Your task to perform on an android device: Go to display settings Image 0: 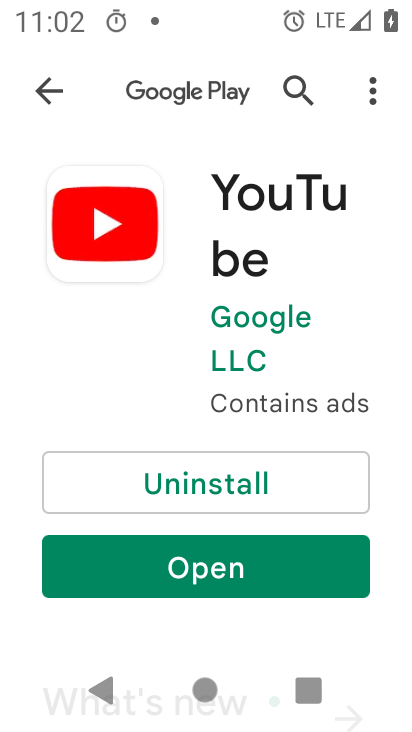
Step 0: press home button
Your task to perform on an android device: Go to display settings Image 1: 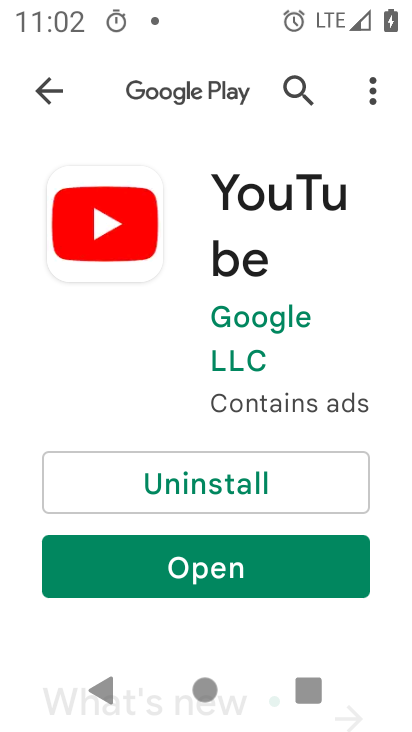
Step 1: drag from (255, 554) to (322, 6)
Your task to perform on an android device: Go to display settings Image 2: 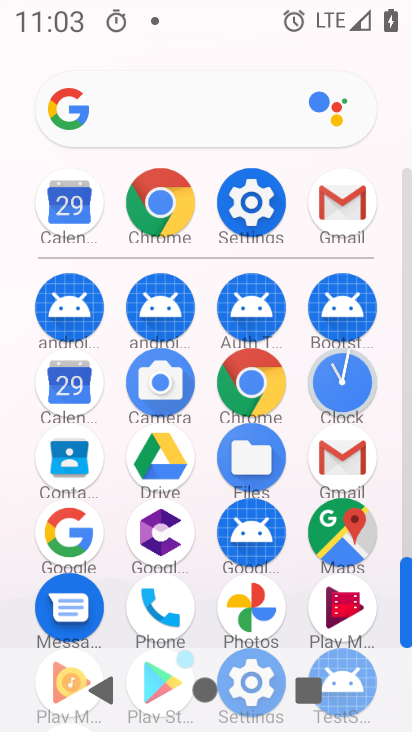
Step 2: click (257, 186)
Your task to perform on an android device: Go to display settings Image 3: 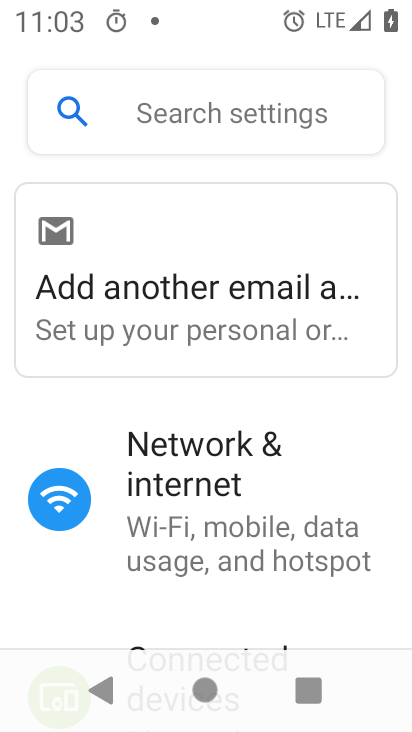
Step 3: drag from (243, 588) to (300, 14)
Your task to perform on an android device: Go to display settings Image 4: 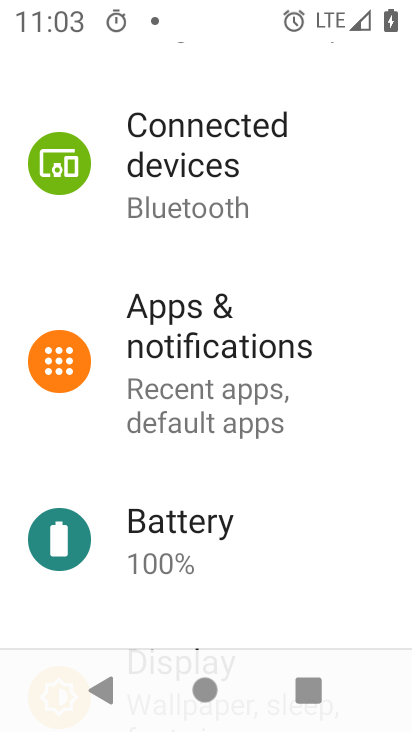
Step 4: drag from (224, 525) to (281, 164)
Your task to perform on an android device: Go to display settings Image 5: 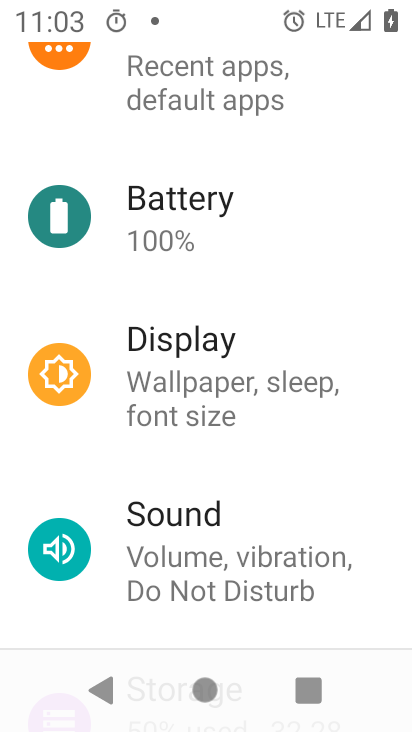
Step 5: click (230, 377)
Your task to perform on an android device: Go to display settings Image 6: 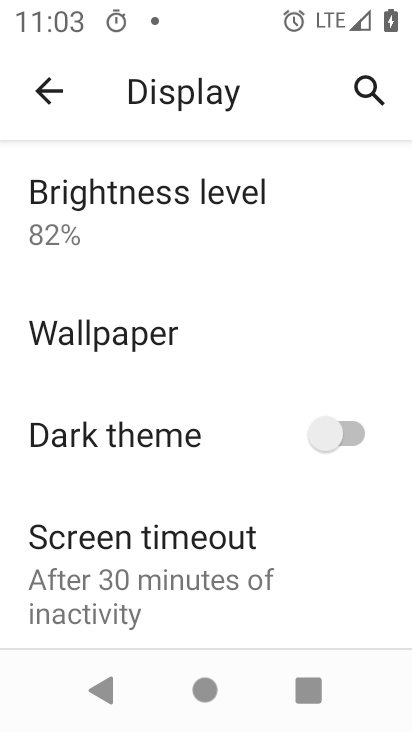
Step 6: task complete